Your task to perform on an android device: Show the shopping cart on newegg.com. Image 0: 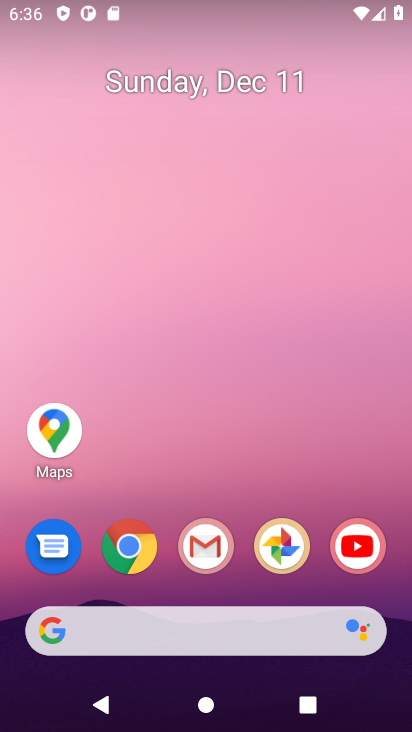
Step 0: click (135, 549)
Your task to perform on an android device: Show the shopping cart on newegg.com. Image 1: 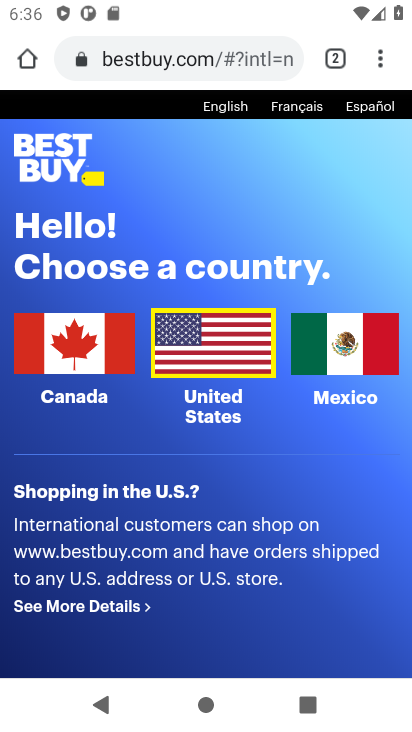
Step 1: click (144, 58)
Your task to perform on an android device: Show the shopping cart on newegg.com. Image 2: 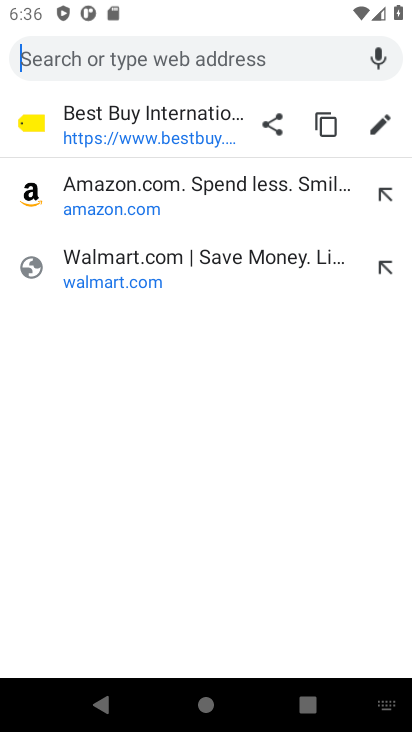
Step 2: type "newegg.com"
Your task to perform on an android device: Show the shopping cart on newegg.com. Image 3: 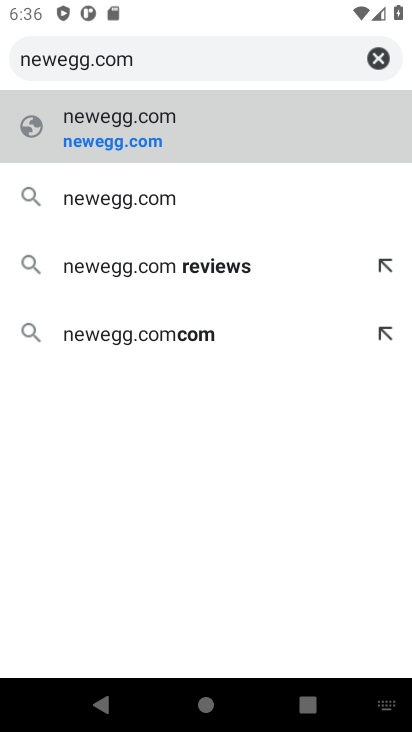
Step 3: click (87, 146)
Your task to perform on an android device: Show the shopping cart on newegg.com. Image 4: 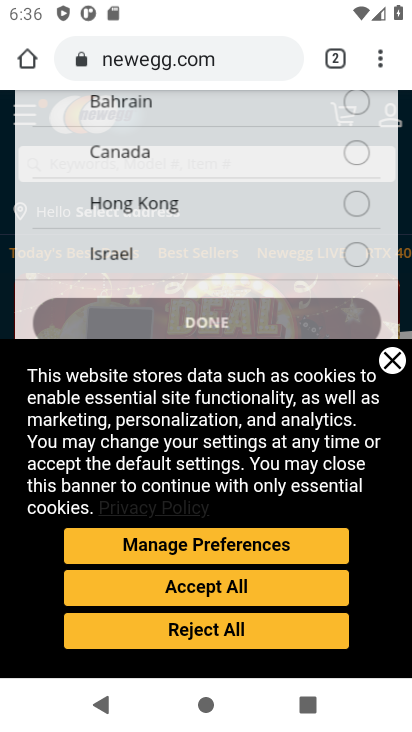
Step 4: click (389, 360)
Your task to perform on an android device: Show the shopping cart on newegg.com. Image 5: 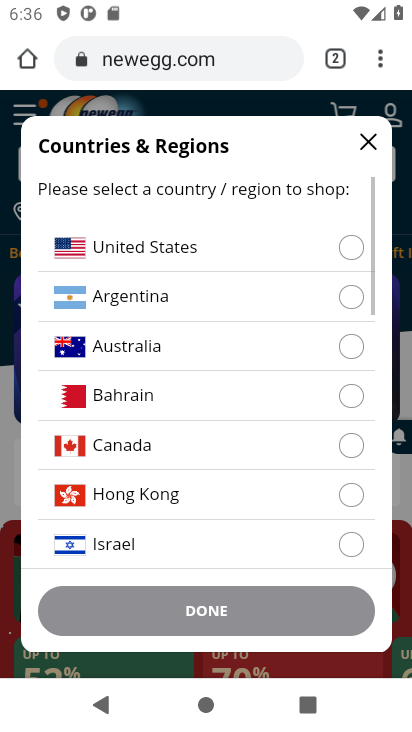
Step 5: click (153, 241)
Your task to perform on an android device: Show the shopping cart on newegg.com. Image 6: 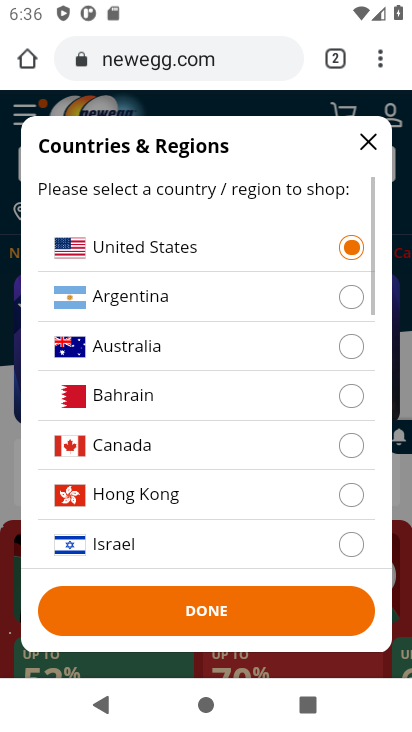
Step 6: click (227, 626)
Your task to perform on an android device: Show the shopping cart on newegg.com. Image 7: 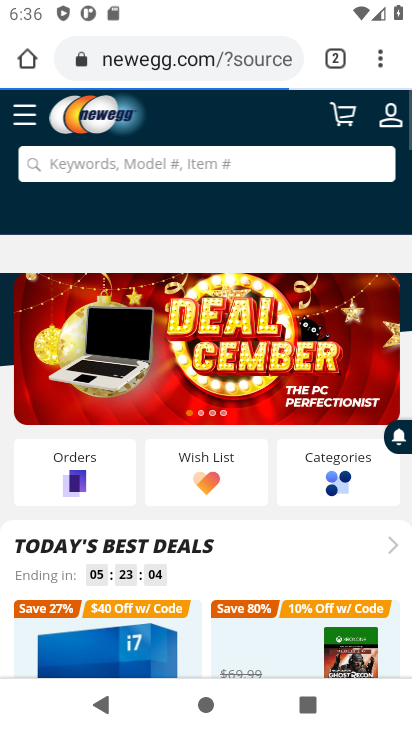
Step 7: click (340, 114)
Your task to perform on an android device: Show the shopping cart on newegg.com. Image 8: 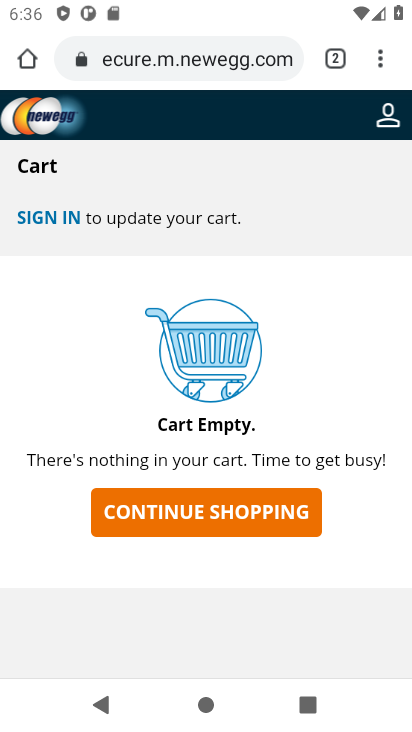
Step 8: task complete